Your task to perform on an android device: turn pop-ups on in chrome Image 0: 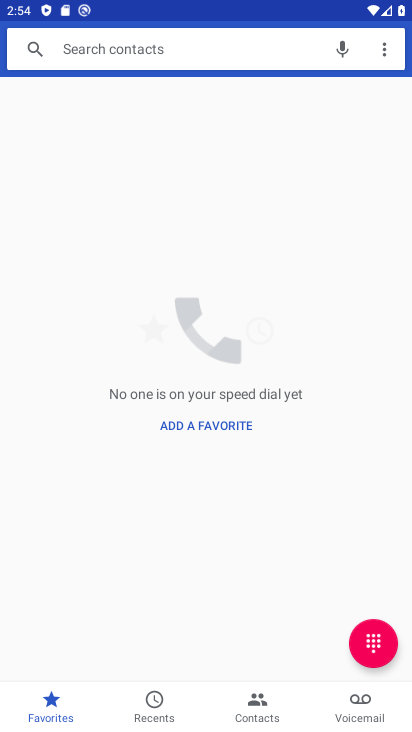
Step 0: press home button
Your task to perform on an android device: turn pop-ups on in chrome Image 1: 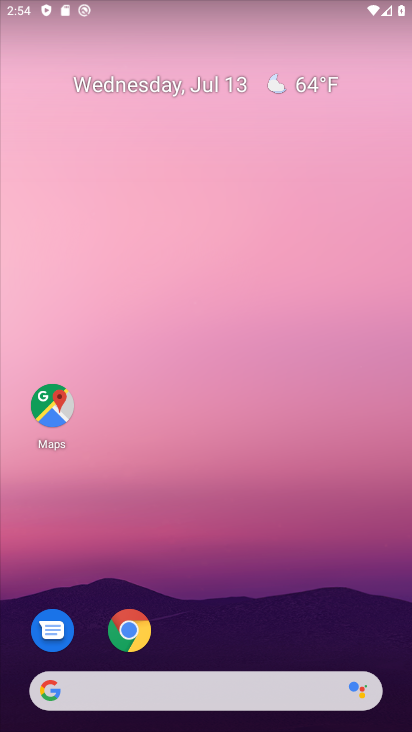
Step 1: click (141, 622)
Your task to perform on an android device: turn pop-ups on in chrome Image 2: 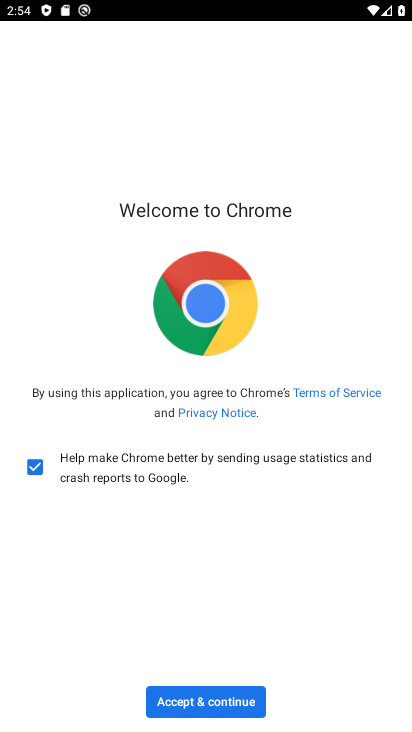
Step 2: click (213, 702)
Your task to perform on an android device: turn pop-ups on in chrome Image 3: 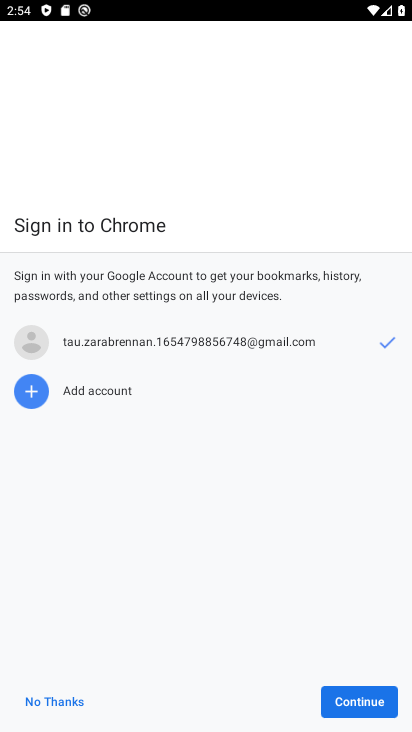
Step 3: click (364, 706)
Your task to perform on an android device: turn pop-ups on in chrome Image 4: 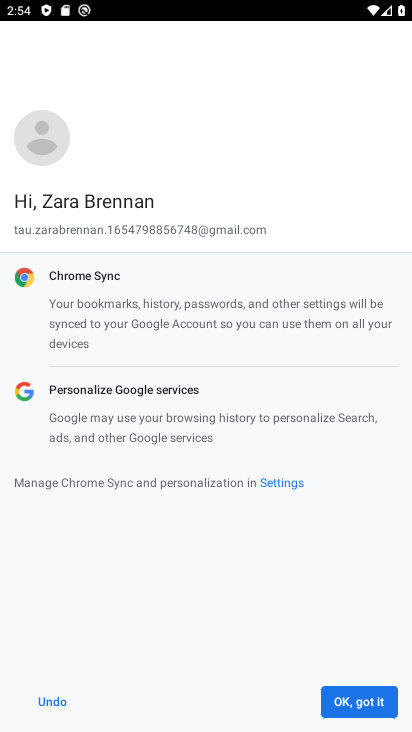
Step 4: click (364, 706)
Your task to perform on an android device: turn pop-ups on in chrome Image 5: 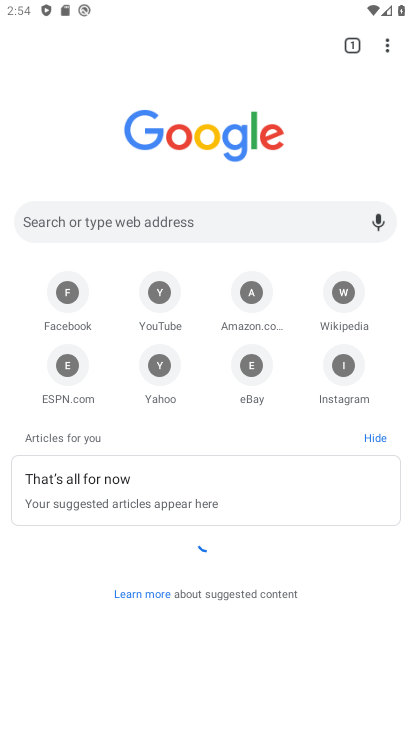
Step 5: click (387, 39)
Your task to perform on an android device: turn pop-ups on in chrome Image 6: 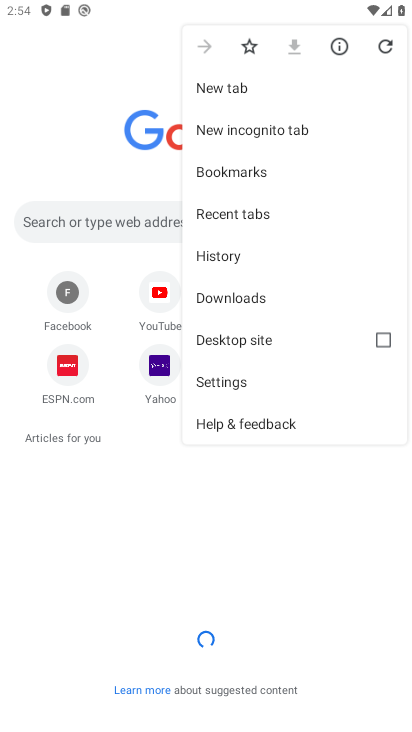
Step 6: click (282, 387)
Your task to perform on an android device: turn pop-ups on in chrome Image 7: 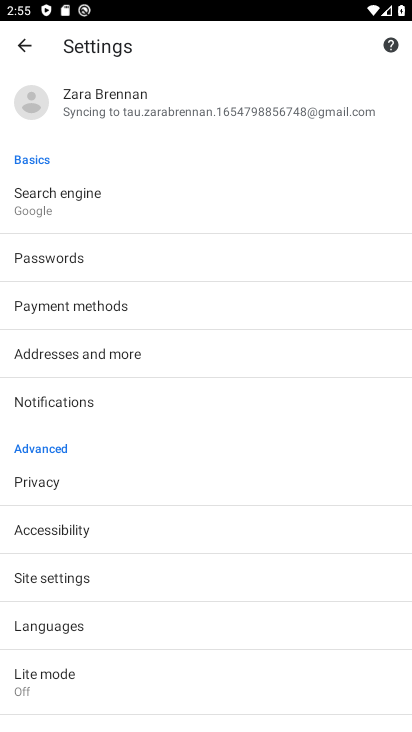
Step 7: click (64, 571)
Your task to perform on an android device: turn pop-ups on in chrome Image 8: 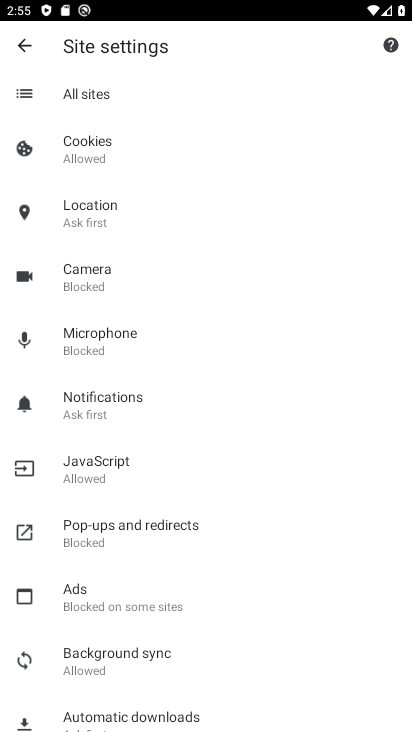
Step 8: click (157, 532)
Your task to perform on an android device: turn pop-ups on in chrome Image 9: 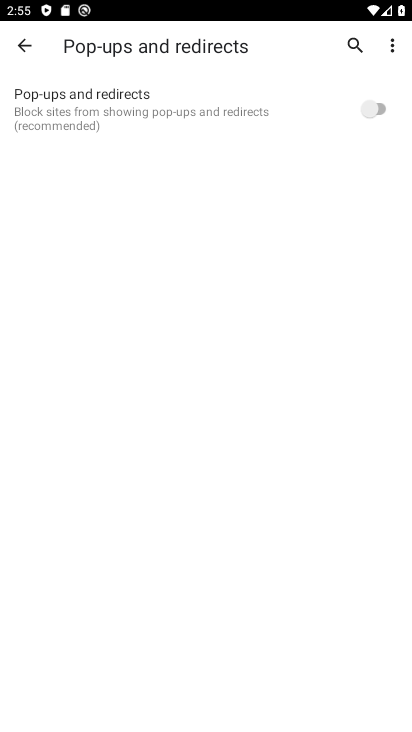
Step 9: click (363, 108)
Your task to perform on an android device: turn pop-ups on in chrome Image 10: 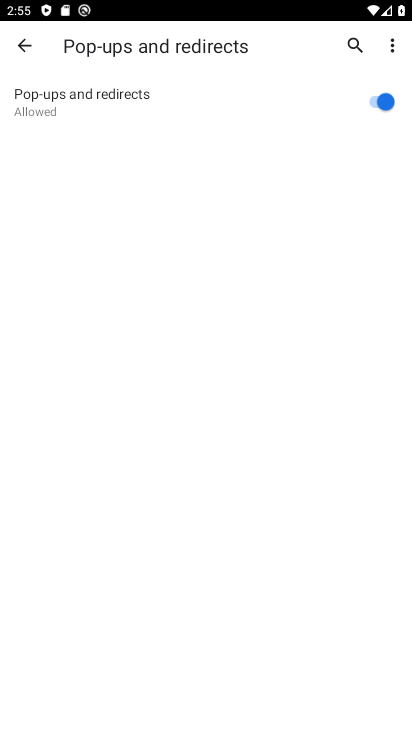
Step 10: task complete